Your task to perform on an android device: Go to CNN.com Image 0: 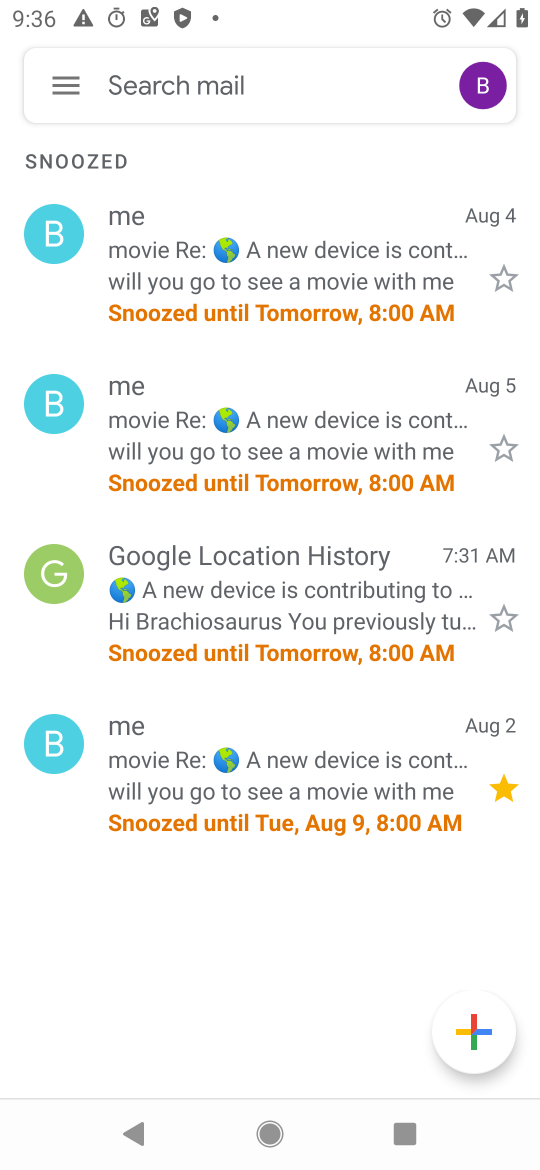
Step 0: press home button
Your task to perform on an android device: Go to CNN.com Image 1: 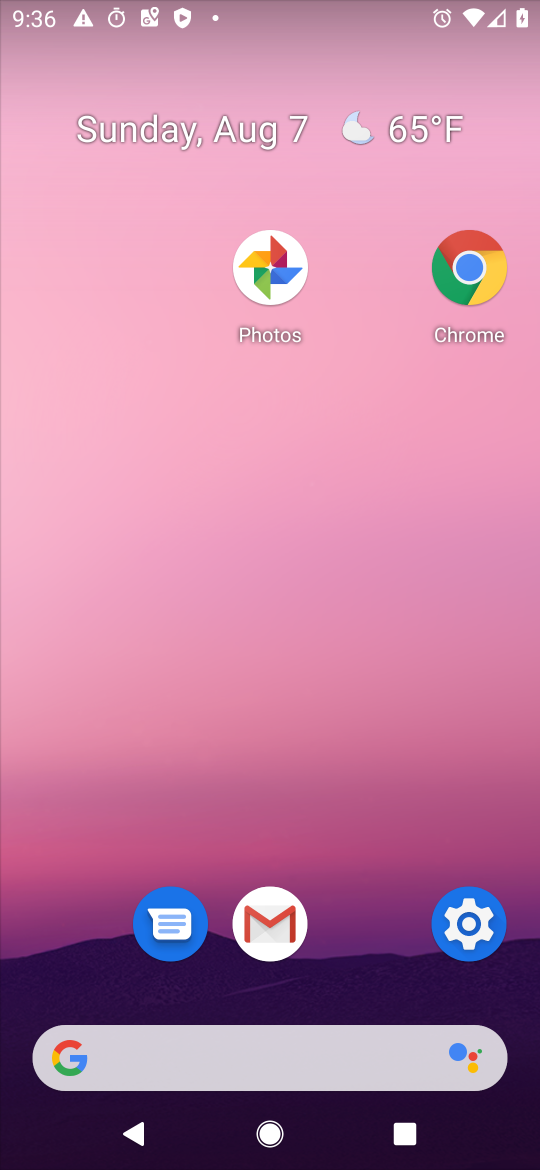
Step 1: click (474, 267)
Your task to perform on an android device: Go to CNN.com Image 2: 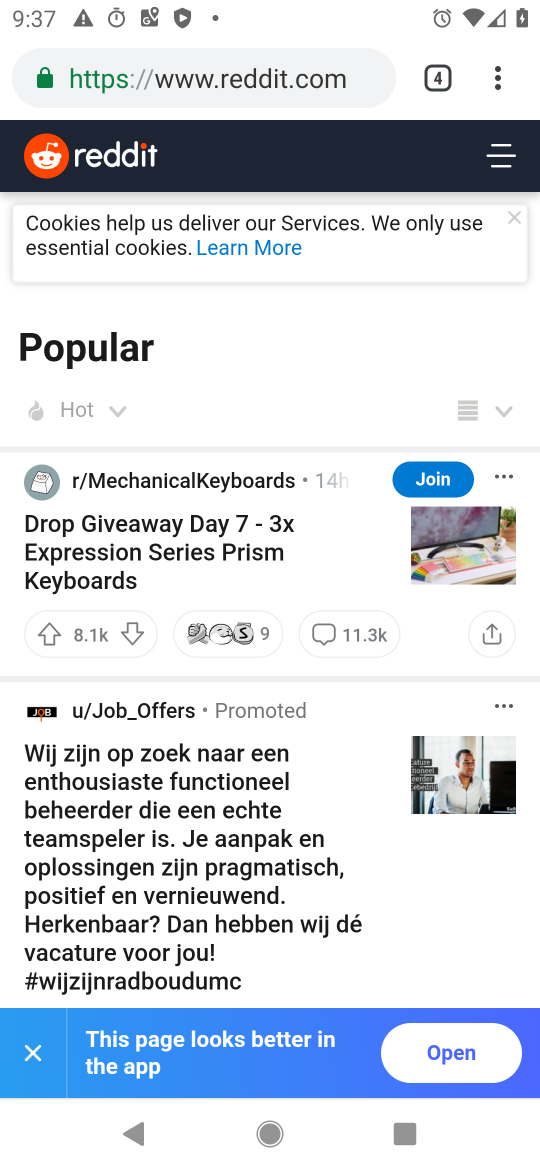
Step 2: click (236, 84)
Your task to perform on an android device: Go to CNN.com Image 3: 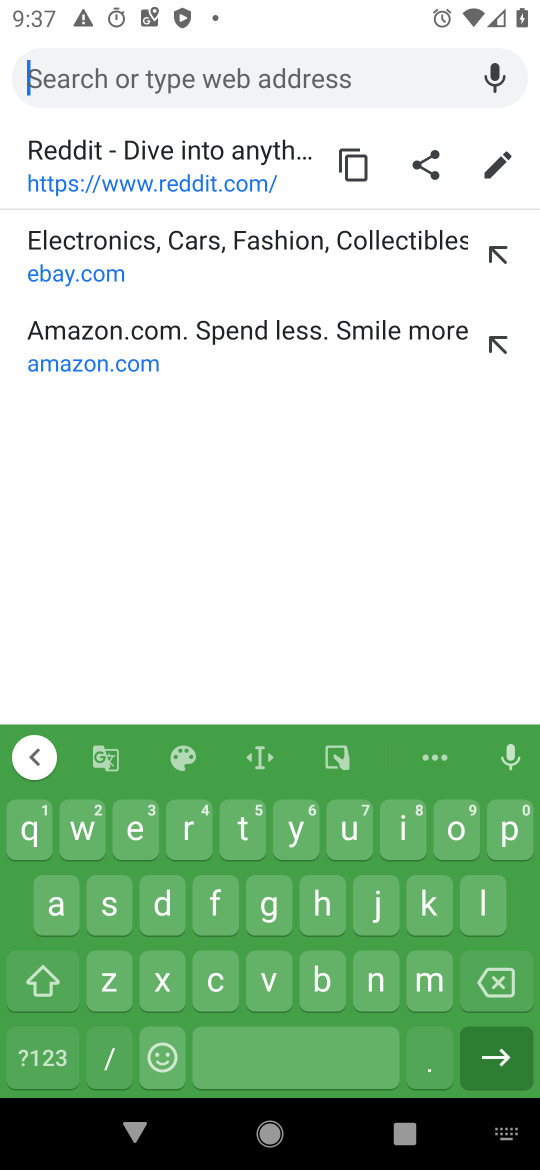
Step 3: click (203, 993)
Your task to perform on an android device: Go to CNN.com Image 4: 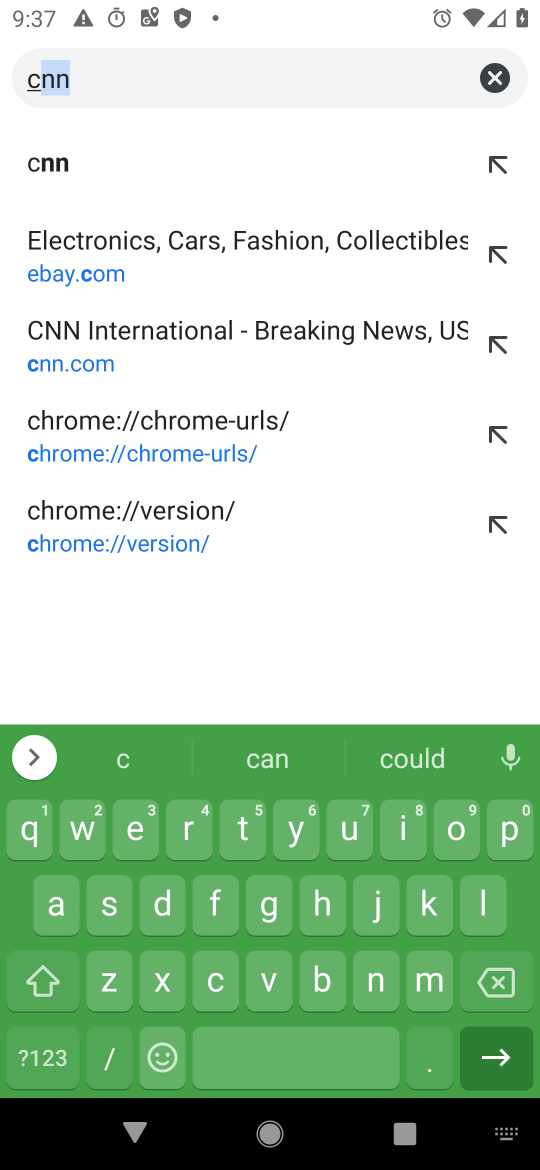
Step 4: click (114, 160)
Your task to perform on an android device: Go to CNN.com Image 5: 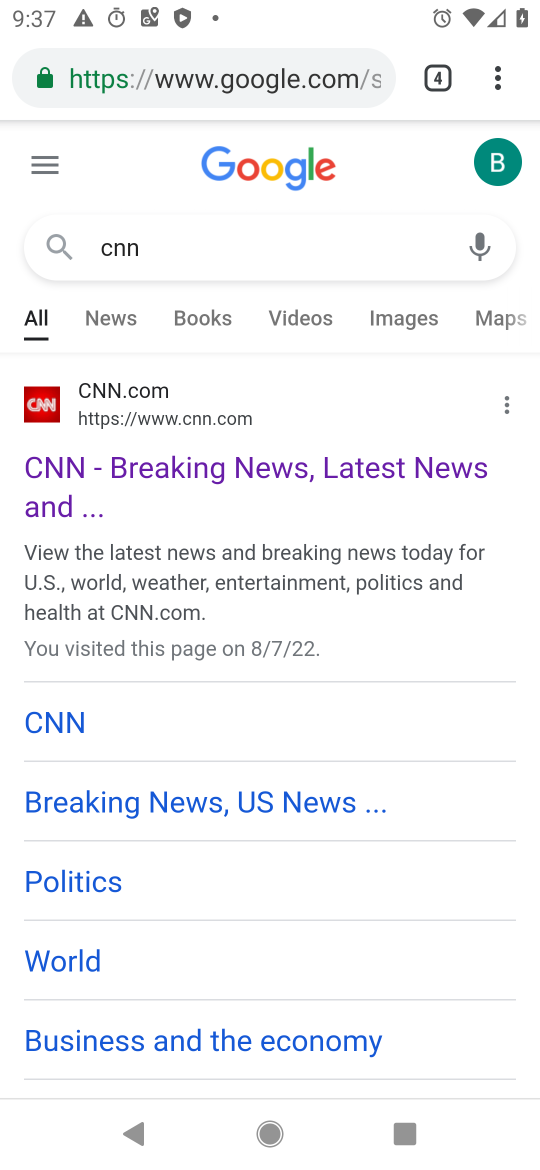
Step 5: click (93, 463)
Your task to perform on an android device: Go to CNN.com Image 6: 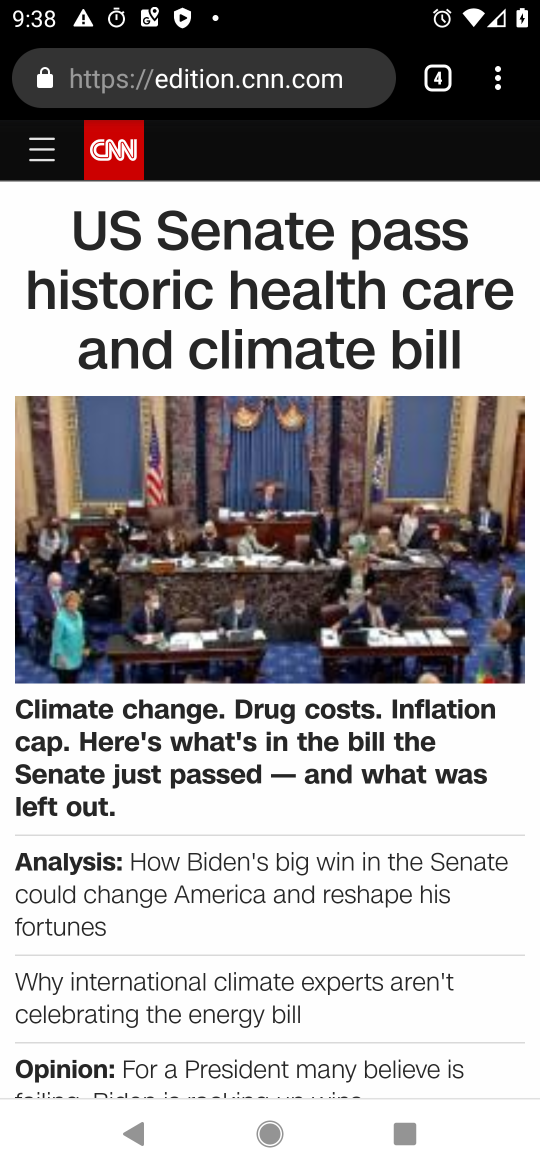
Step 6: task complete